Your task to perform on an android device: turn on translation in the chrome app Image 0: 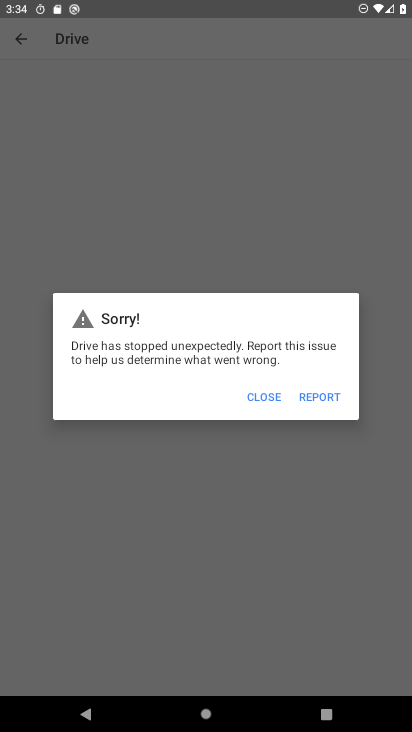
Step 0: press home button
Your task to perform on an android device: turn on translation in the chrome app Image 1: 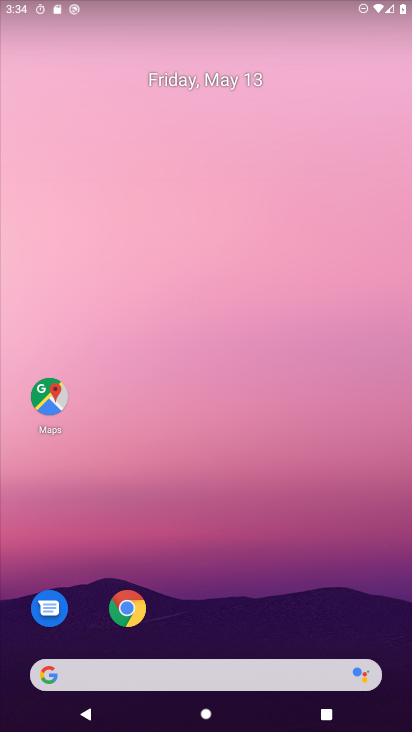
Step 1: click (127, 607)
Your task to perform on an android device: turn on translation in the chrome app Image 2: 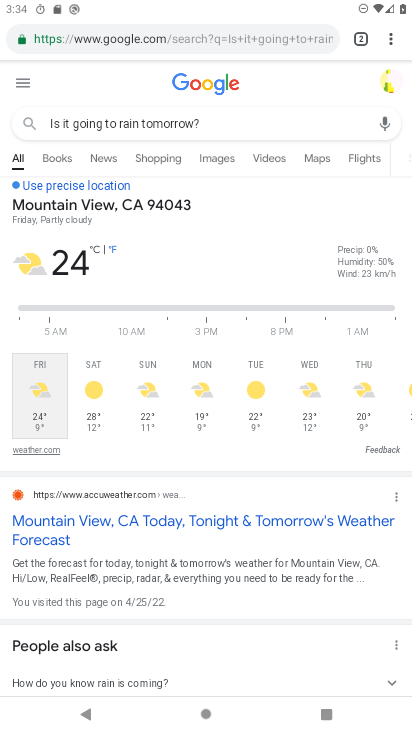
Step 2: drag from (384, 33) to (265, 418)
Your task to perform on an android device: turn on translation in the chrome app Image 3: 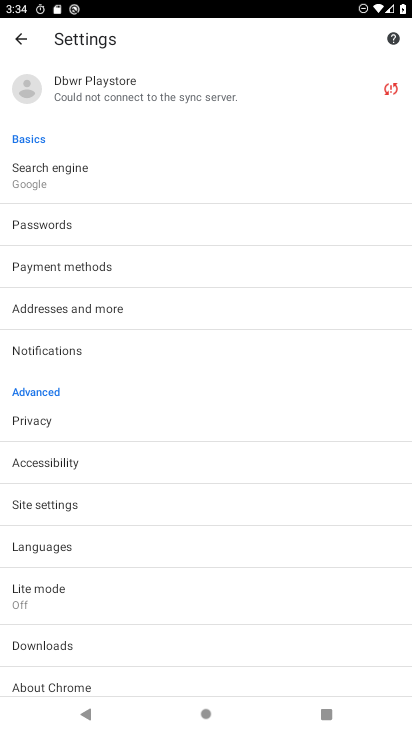
Step 3: drag from (141, 508) to (178, 237)
Your task to perform on an android device: turn on translation in the chrome app Image 4: 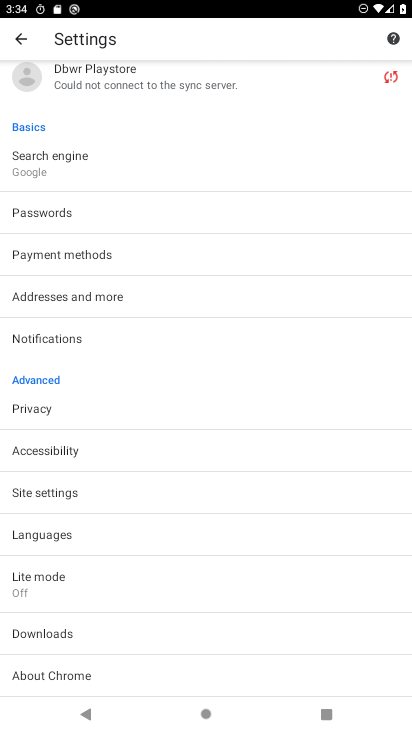
Step 4: click (50, 532)
Your task to perform on an android device: turn on translation in the chrome app Image 5: 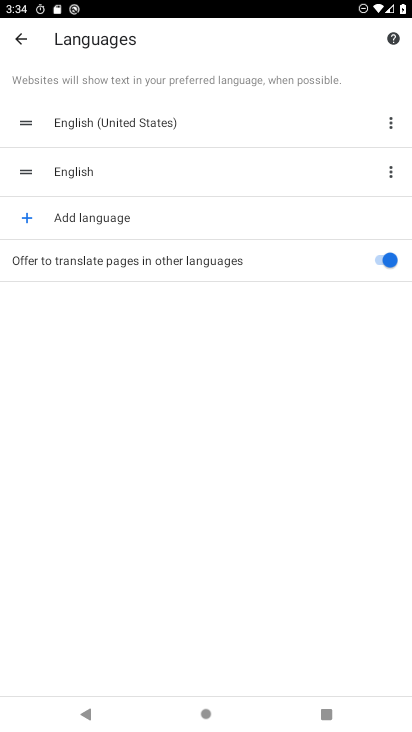
Step 5: task complete